Your task to perform on an android device: remove spam from my inbox in the gmail app Image 0: 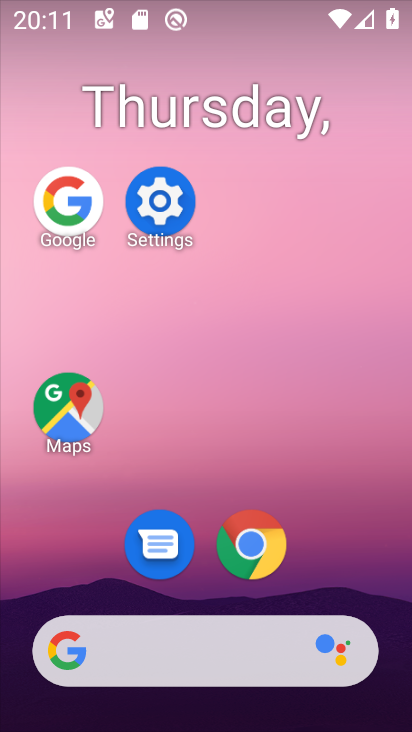
Step 0: press back button
Your task to perform on an android device: remove spam from my inbox in the gmail app Image 1: 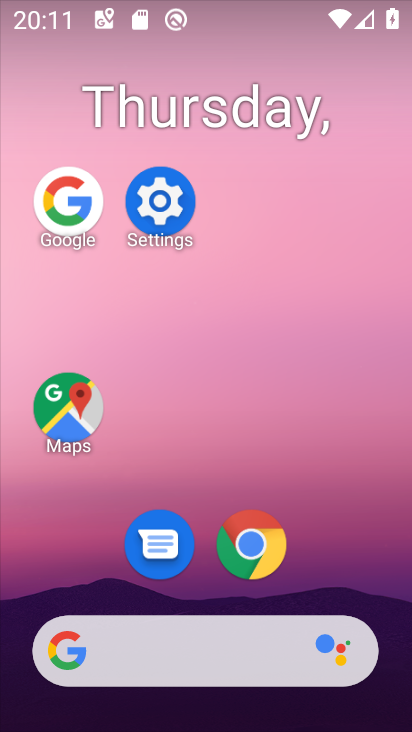
Step 1: drag from (248, 703) to (272, 68)
Your task to perform on an android device: remove spam from my inbox in the gmail app Image 2: 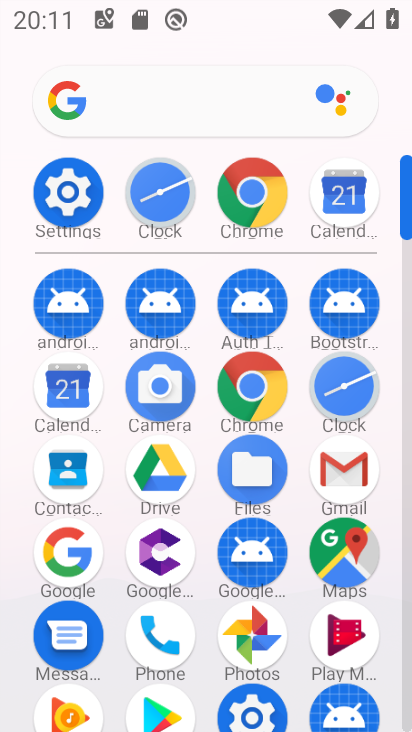
Step 2: click (333, 459)
Your task to perform on an android device: remove spam from my inbox in the gmail app Image 3: 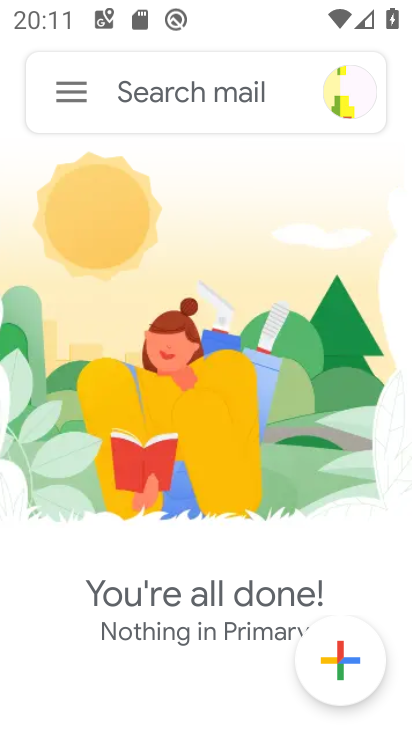
Step 3: click (73, 115)
Your task to perform on an android device: remove spam from my inbox in the gmail app Image 4: 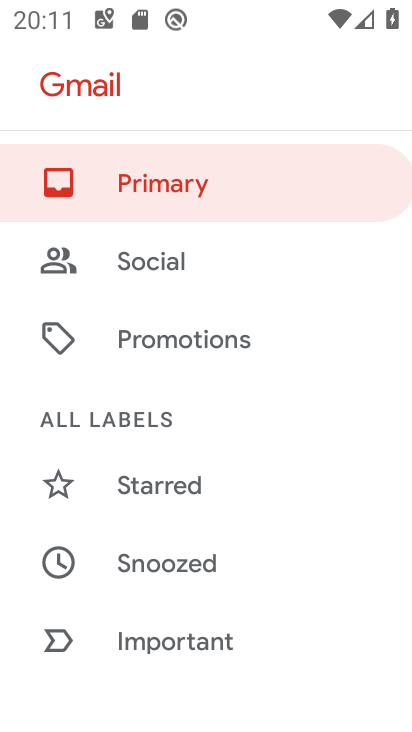
Step 4: drag from (155, 491) to (255, 144)
Your task to perform on an android device: remove spam from my inbox in the gmail app Image 5: 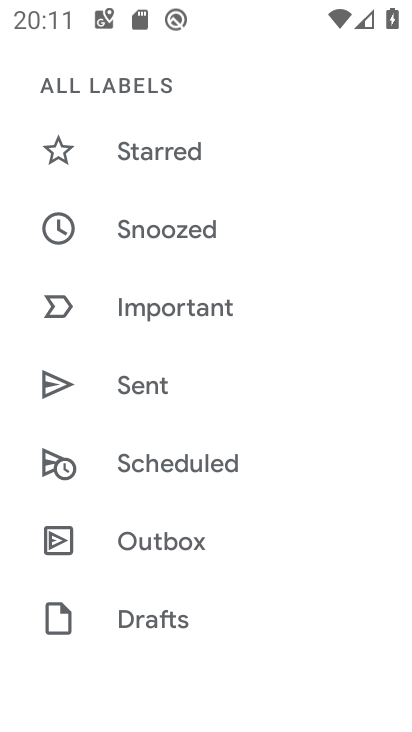
Step 5: drag from (199, 551) to (207, 363)
Your task to perform on an android device: remove spam from my inbox in the gmail app Image 6: 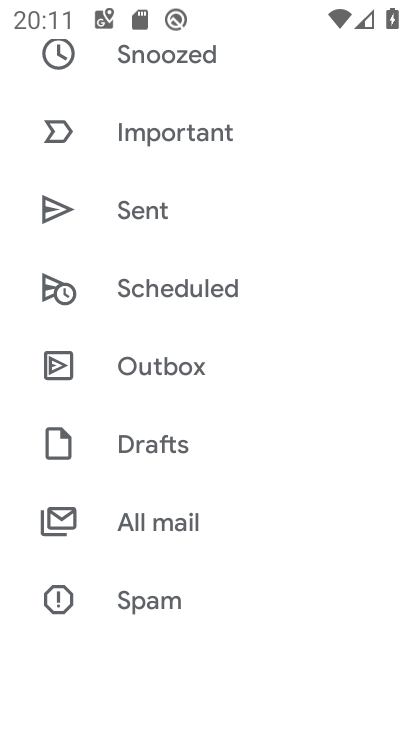
Step 6: click (177, 596)
Your task to perform on an android device: remove spam from my inbox in the gmail app Image 7: 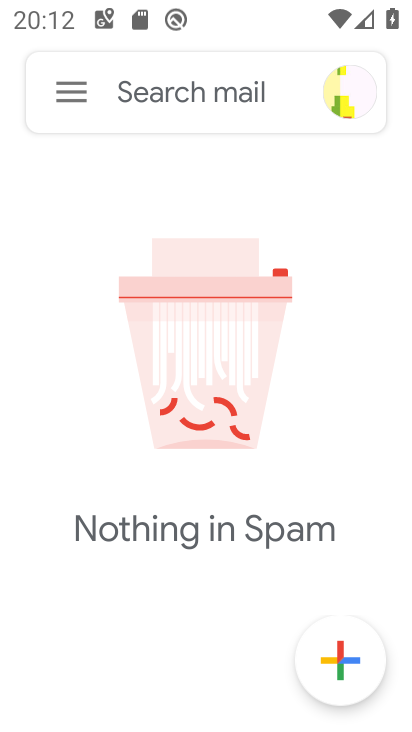
Step 7: task complete